Your task to perform on an android device: Open ESPN.com Image 0: 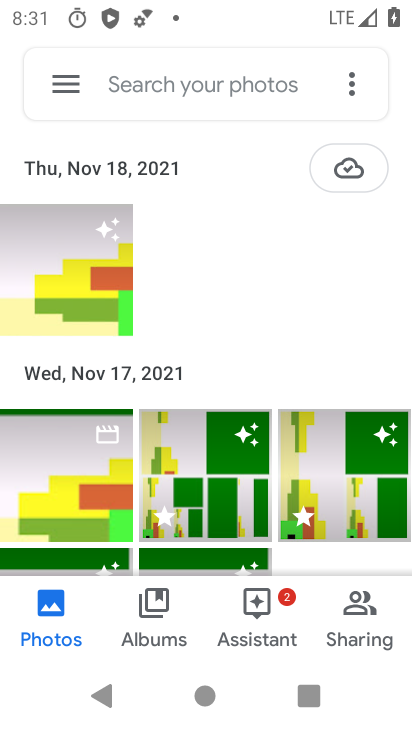
Step 0: press home button
Your task to perform on an android device: Open ESPN.com Image 1: 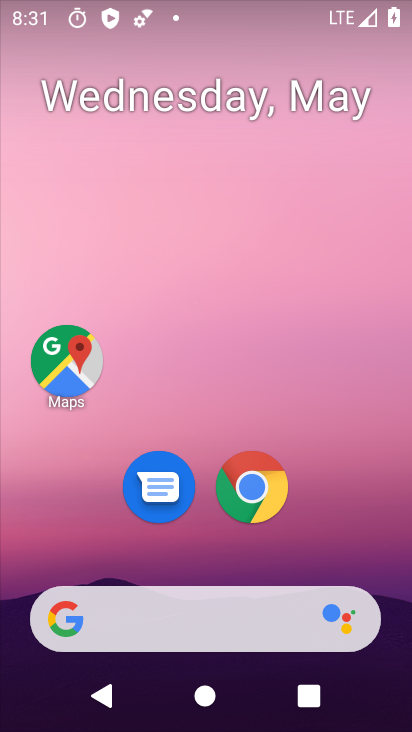
Step 1: click (257, 491)
Your task to perform on an android device: Open ESPN.com Image 2: 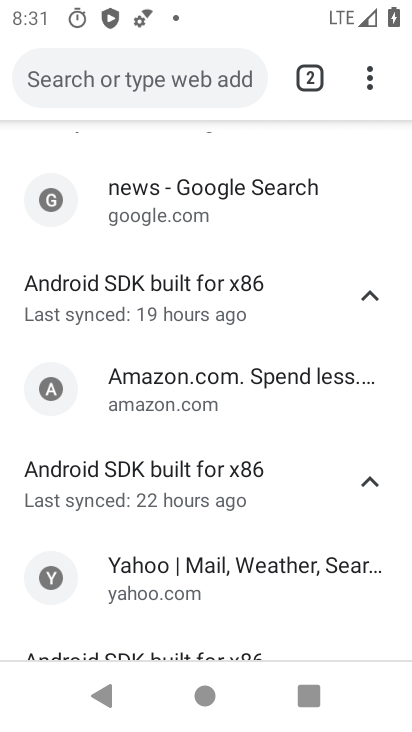
Step 2: click (309, 85)
Your task to perform on an android device: Open ESPN.com Image 3: 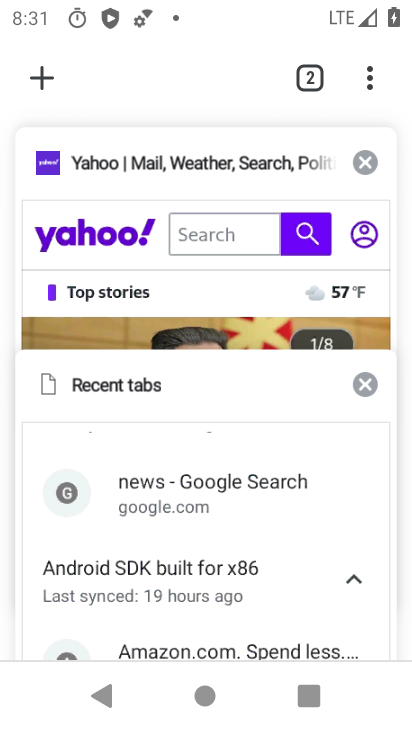
Step 3: click (51, 73)
Your task to perform on an android device: Open ESPN.com Image 4: 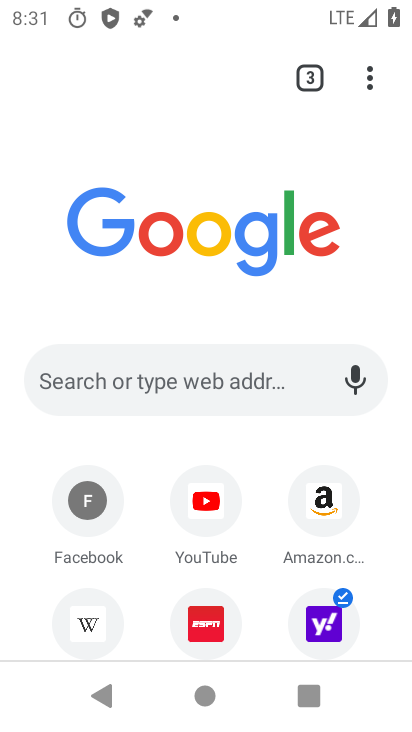
Step 4: click (119, 361)
Your task to perform on an android device: Open ESPN.com Image 5: 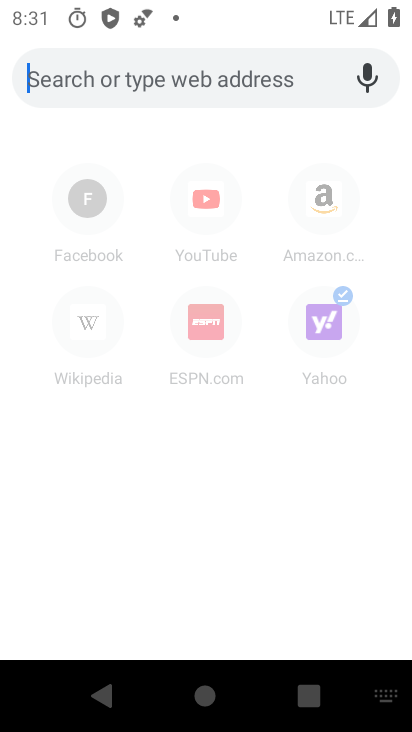
Step 5: type "ESPN.com"
Your task to perform on an android device: Open ESPN.com Image 6: 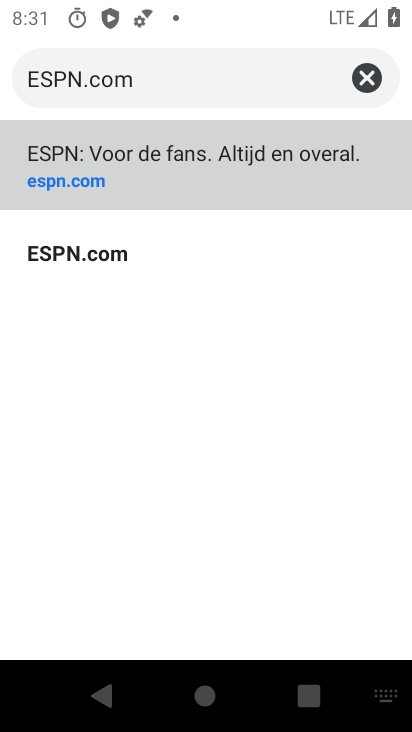
Step 6: click (152, 186)
Your task to perform on an android device: Open ESPN.com Image 7: 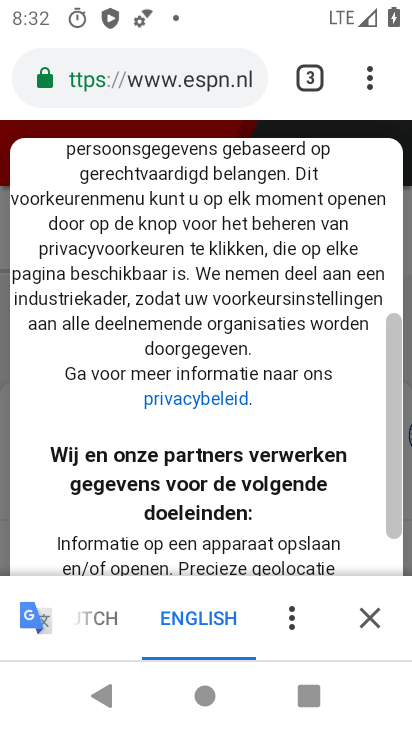
Step 7: task complete